Your task to perform on an android device: install app "PUBG MOBILE" Image 0: 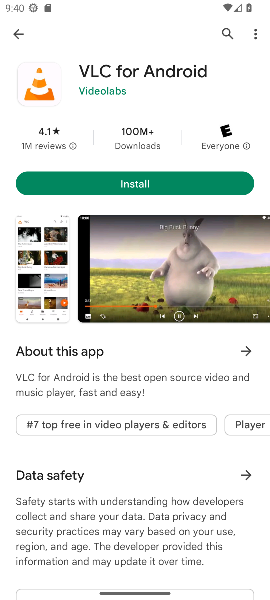
Step 0: drag from (137, 457) to (176, 574)
Your task to perform on an android device: install app "PUBG MOBILE" Image 1: 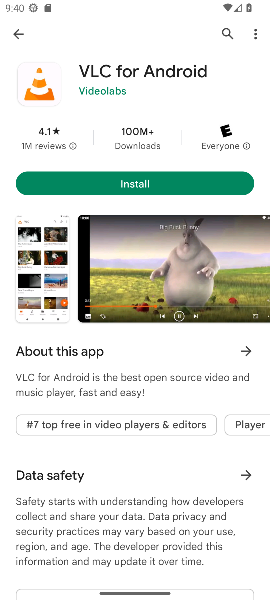
Step 1: click (230, 29)
Your task to perform on an android device: install app "PUBG MOBILE" Image 2: 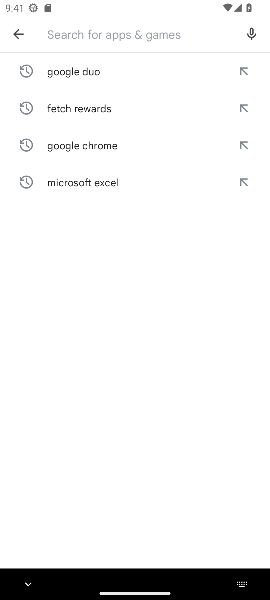
Step 2: type "PUBG MOBILE"
Your task to perform on an android device: install app "PUBG MOBILE" Image 3: 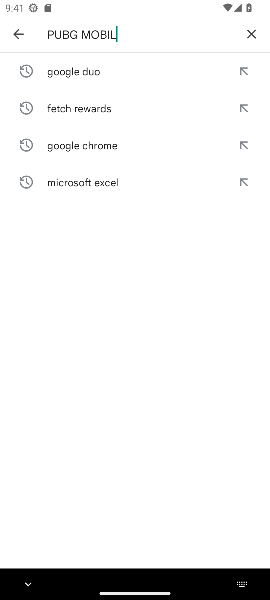
Step 3: type ""
Your task to perform on an android device: install app "PUBG MOBILE" Image 4: 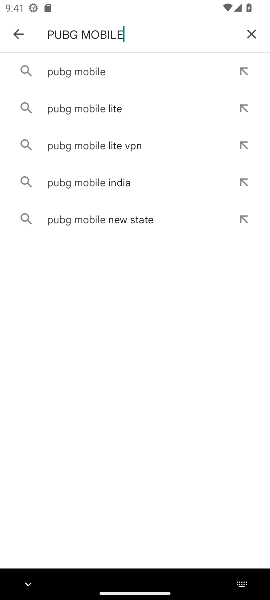
Step 4: click (82, 69)
Your task to perform on an android device: install app "PUBG MOBILE" Image 5: 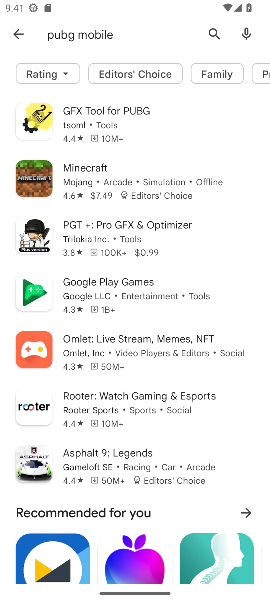
Step 5: task complete